Your task to perform on an android device: When is my next appointment? Image 0: 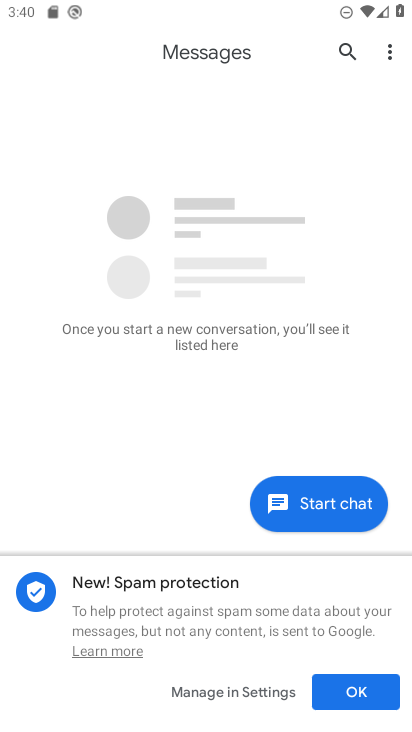
Step 0: press home button
Your task to perform on an android device: When is my next appointment? Image 1: 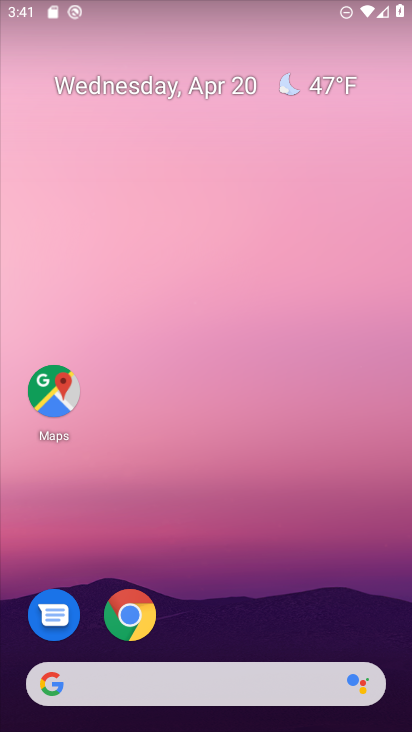
Step 1: drag from (222, 532) to (229, 102)
Your task to perform on an android device: When is my next appointment? Image 2: 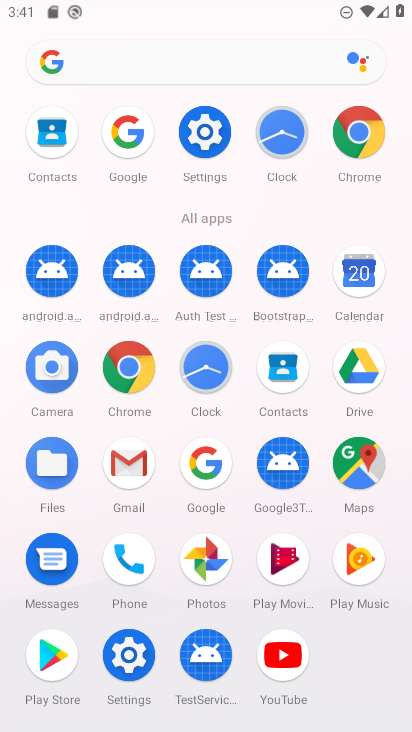
Step 2: click (358, 270)
Your task to perform on an android device: When is my next appointment? Image 3: 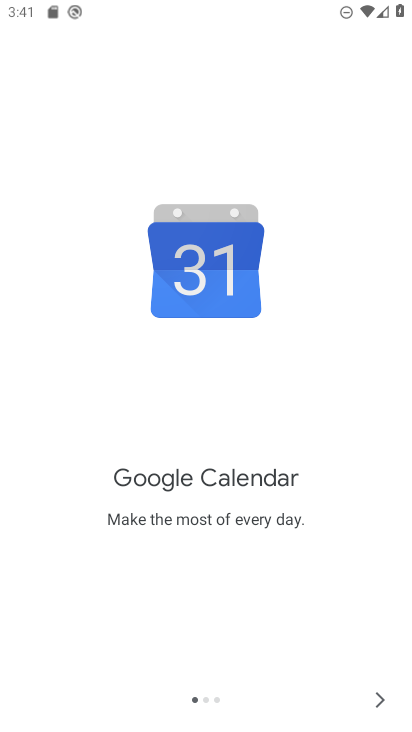
Step 3: click (379, 698)
Your task to perform on an android device: When is my next appointment? Image 4: 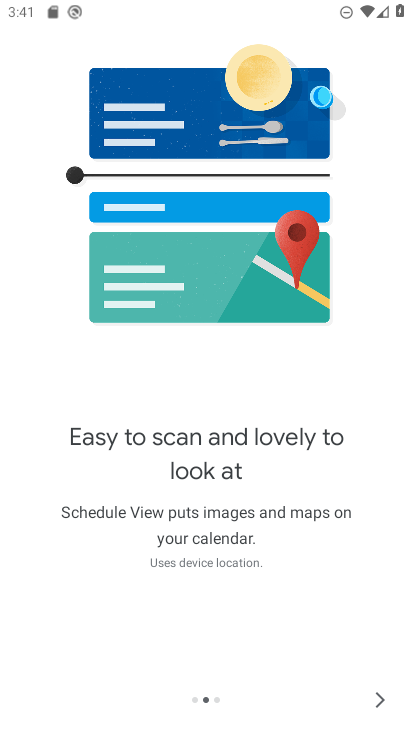
Step 4: click (379, 698)
Your task to perform on an android device: When is my next appointment? Image 5: 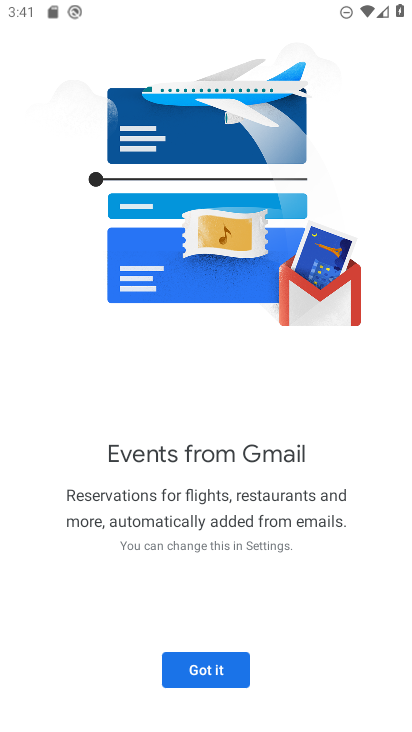
Step 5: click (217, 664)
Your task to perform on an android device: When is my next appointment? Image 6: 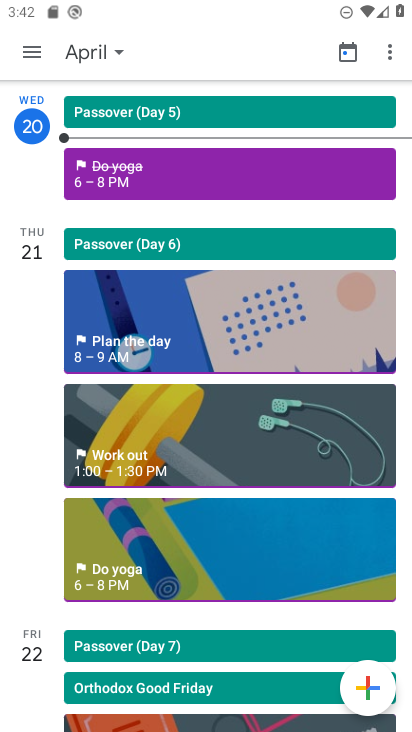
Step 6: task complete